Your task to perform on an android device: move a message to another label in the gmail app Image 0: 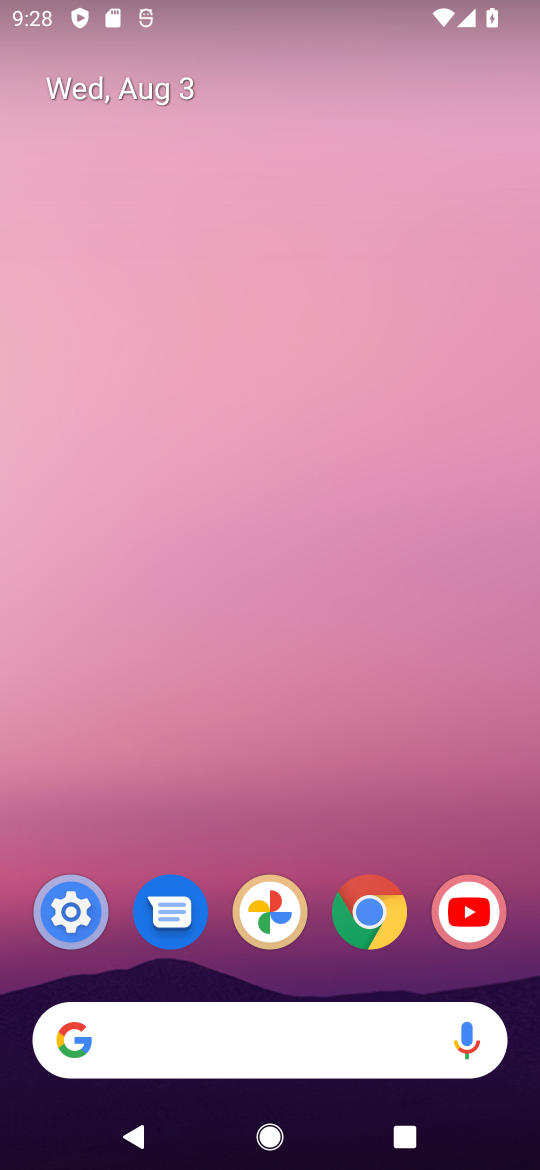
Step 0: drag from (156, 776) to (3, 129)
Your task to perform on an android device: move a message to another label in the gmail app Image 1: 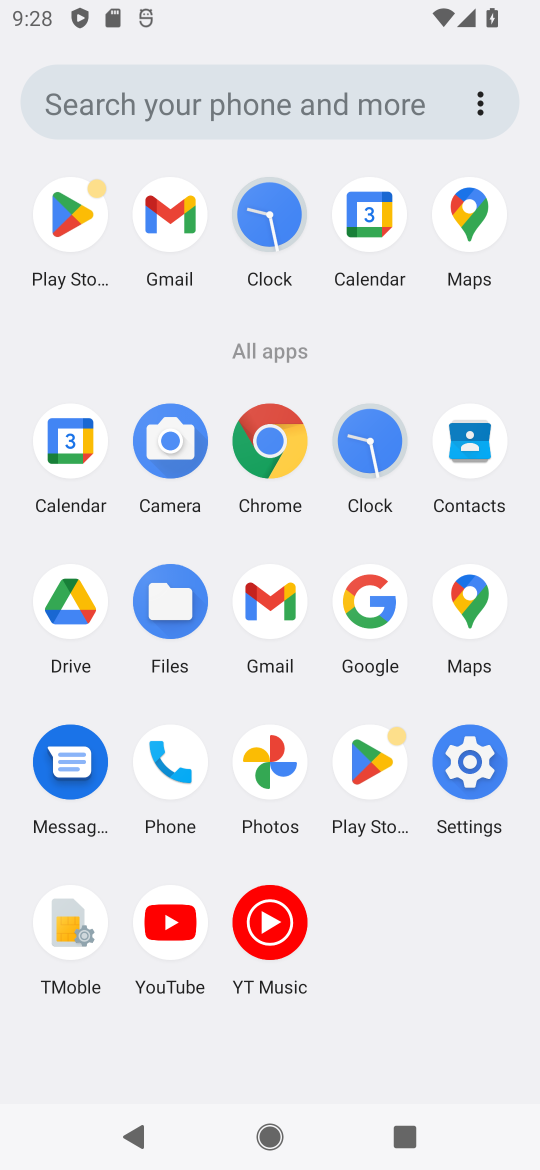
Step 1: click (166, 240)
Your task to perform on an android device: move a message to another label in the gmail app Image 2: 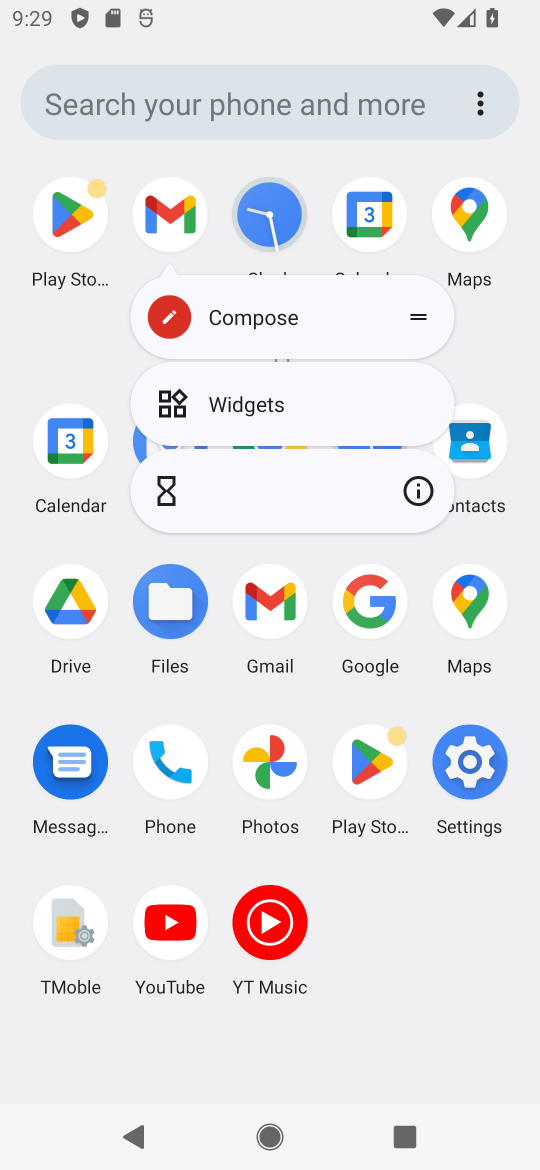
Step 2: click (176, 245)
Your task to perform on an android device: move a message to another label in the gmail app Image 3: 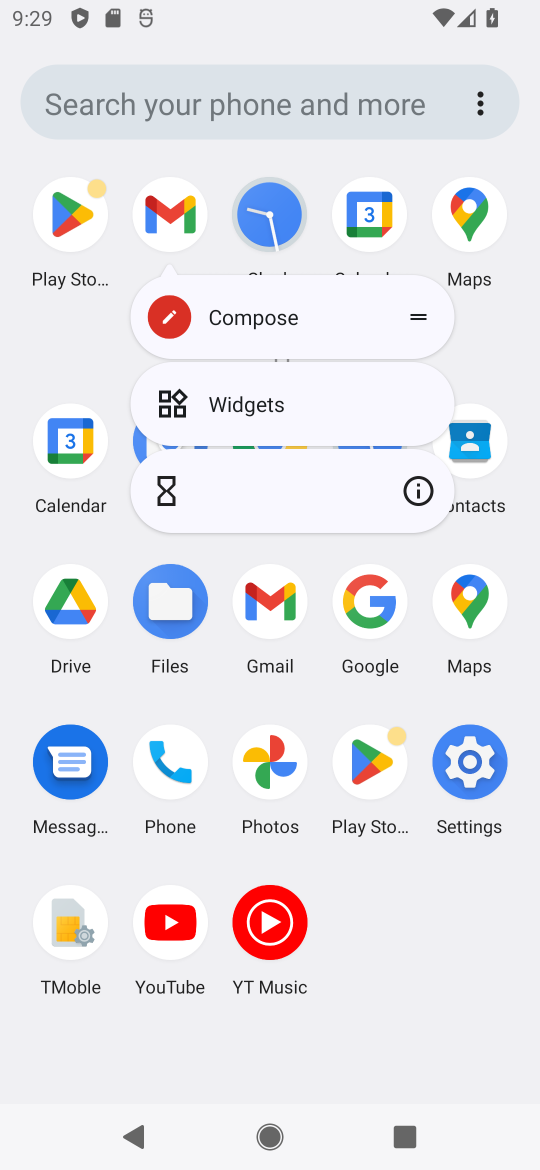
Step 3: click (176, 245)
Your task to perform on an android device: move a message to another label in the gmail app Image 4: 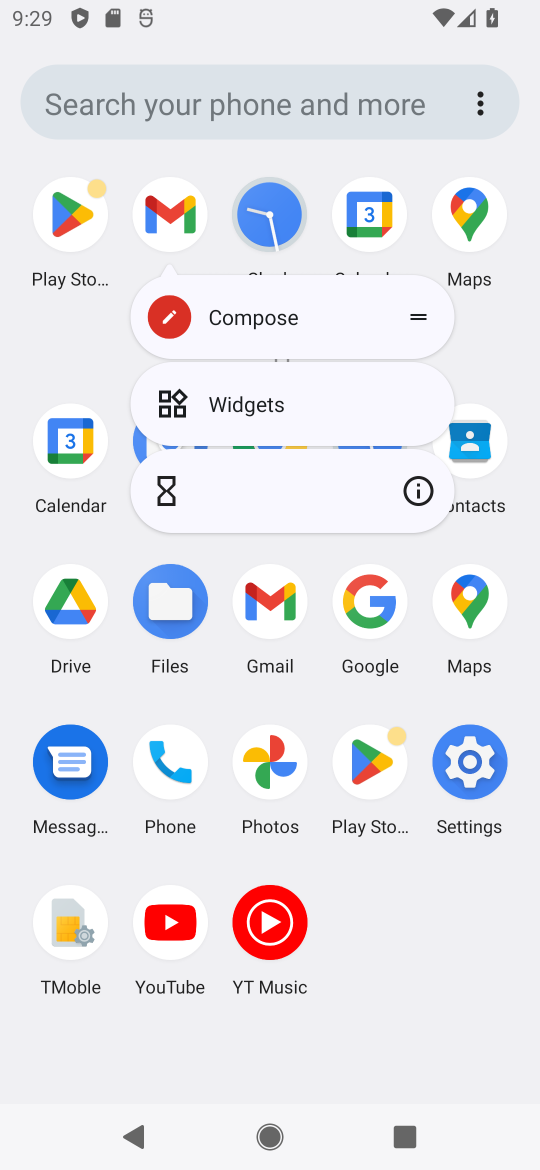
Step 4: click (167, 217)
Your task to perform on an android device: move a message to another label in the gmail app Image 5: 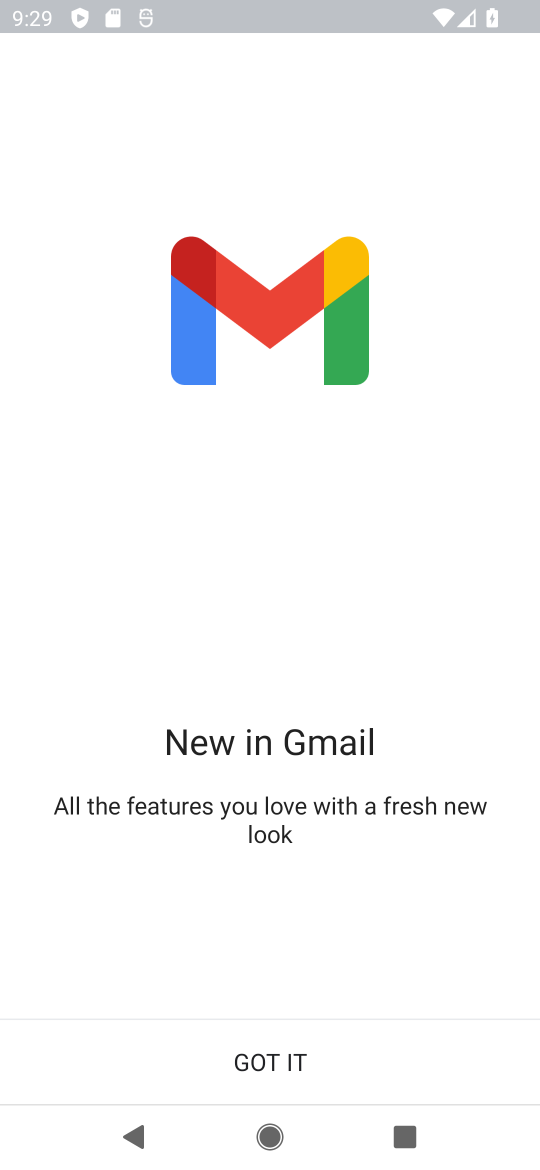
Step 5: click (274, 1085)
Your task to perform on an android device: move a message to another label in the gmail app Image 6: 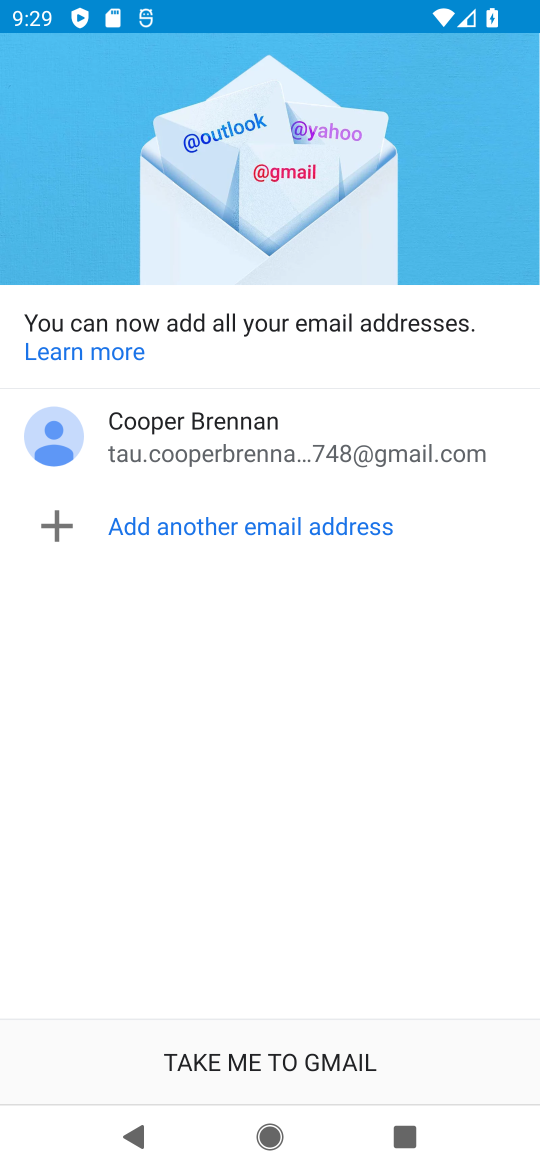
Step 6: click (270, 1066)
Your task to perform on an android device: move a message to another label in the gmail app Image 7: 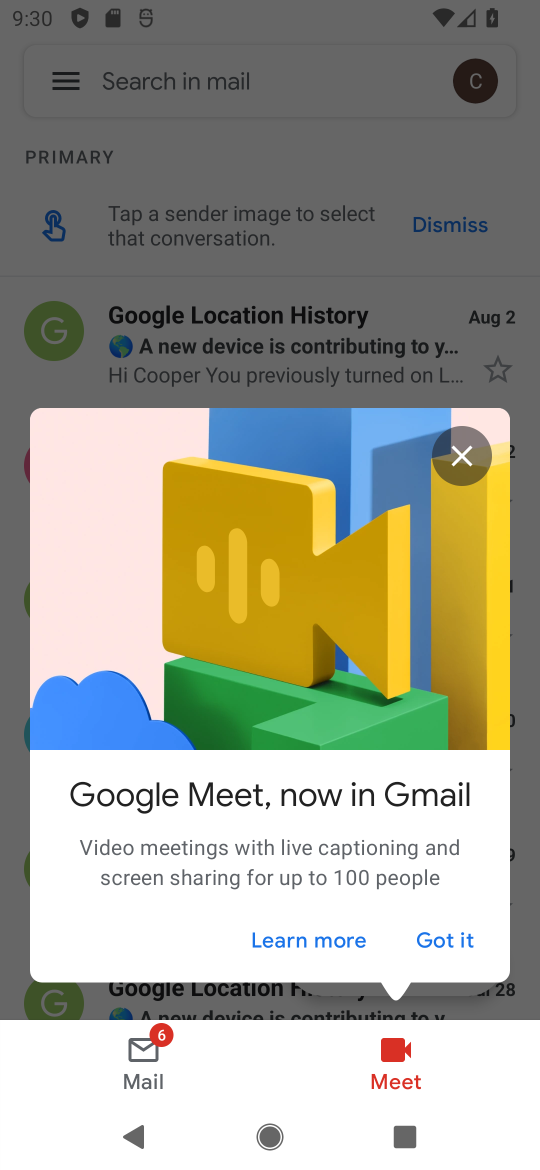
Step 7: click (267, 168)
Your task to perform on an android device: move a message to another label in the gmail app Image 8: 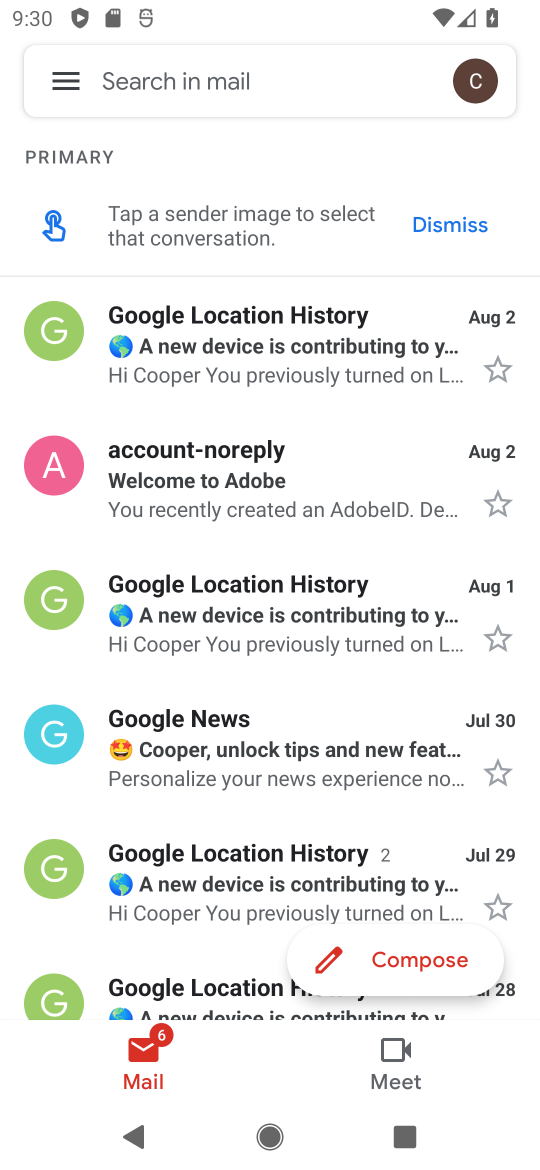
Step 8: click (492, 369)
Your task to perform on an android device: move a message to another label in the gmail app Image 9: 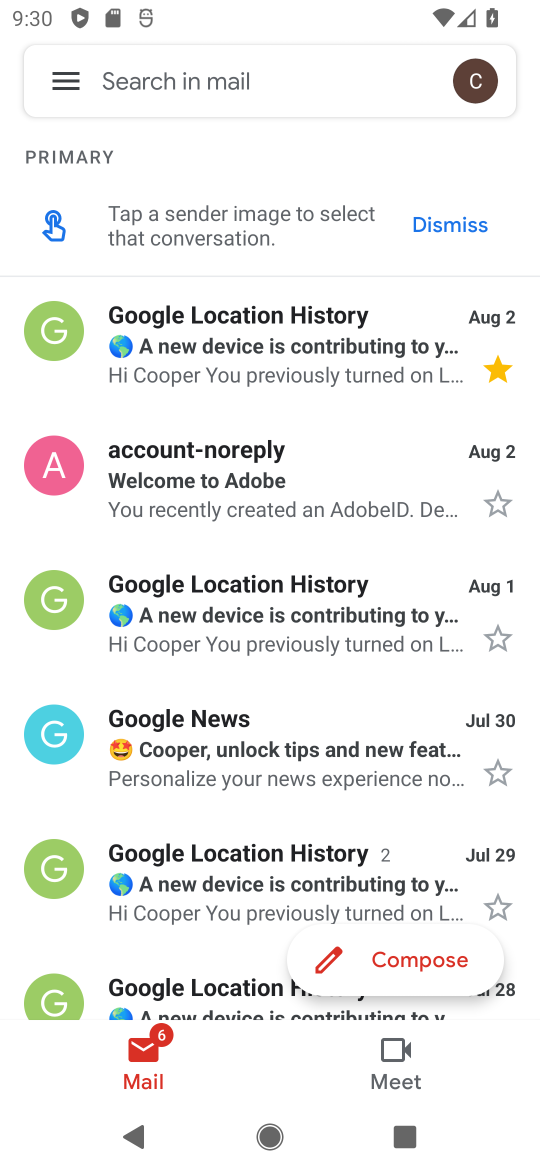
Step 9: task complete